Your task to perform on an android device: Open accessibility settings Image 0: 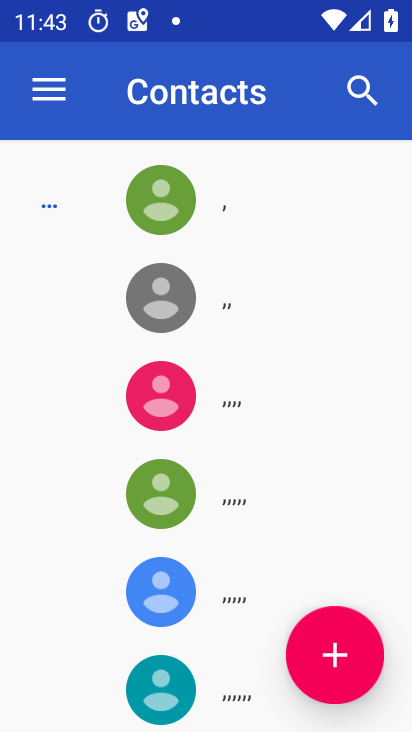
Step 0: press home button
Your task to perform on an android device: Open accessibility settings Image 1: 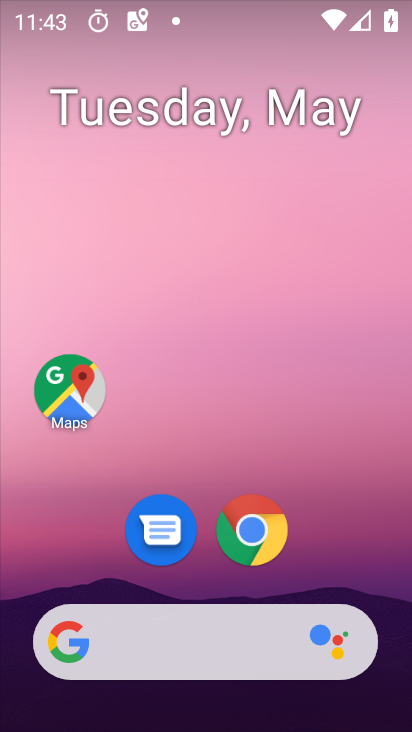
Step 1: drag from (234, 585) to (269, 158)
Your task to perform on an android device: Open accessibility settings Image 2: 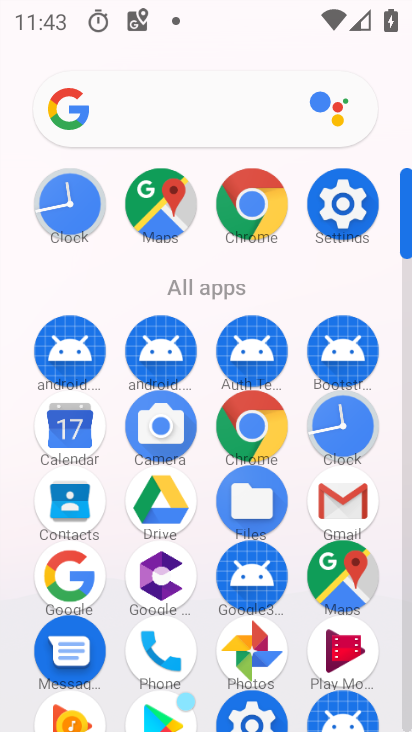
Step 2: click (347, 194)
Your task to perform on an android device: Open accessibility settings Image 3: 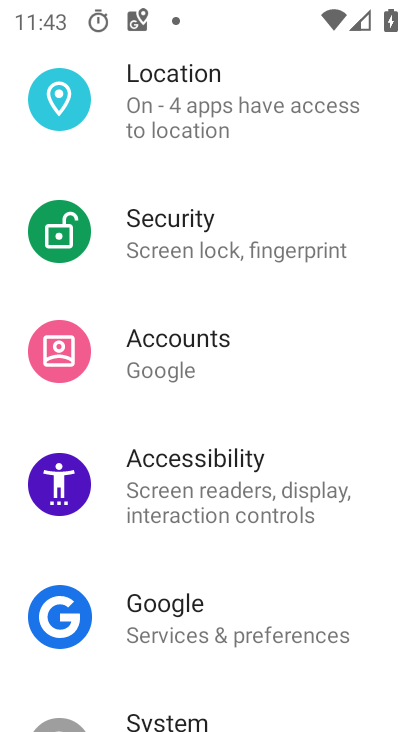
Step 3: click (225, 491)
Your task to perform on an android device: Open accessibility settings Image 4: 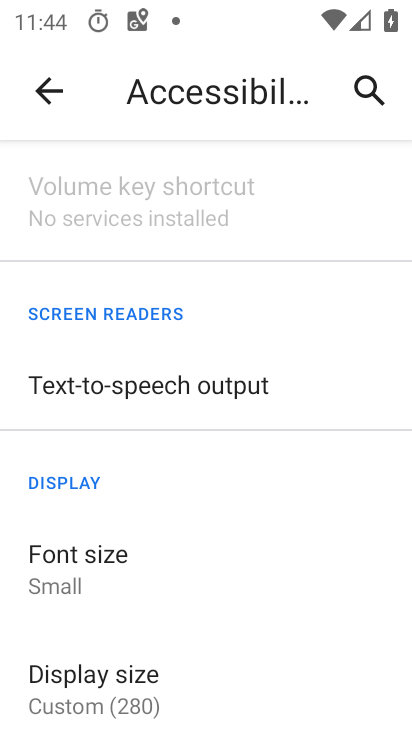
Step 4: task complete